Your task to perform on an android device: Open Google Maps and go to "Timeline" Image 0: 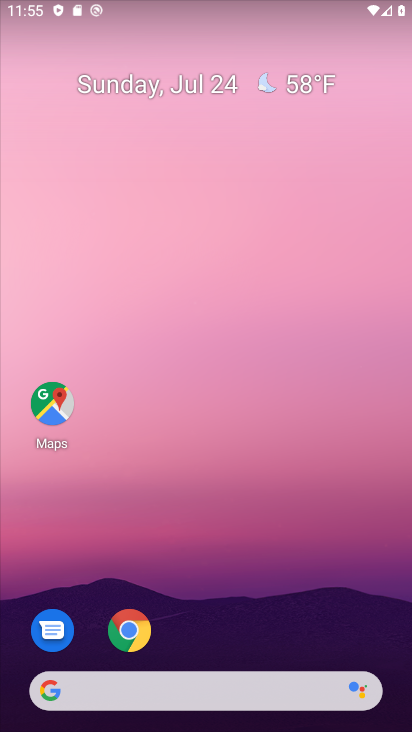
Step 0: drag from (246, 638) to (200, 116)
Your task to perform on an android device: Open Google Maps and go to "Timeline" Image 1: 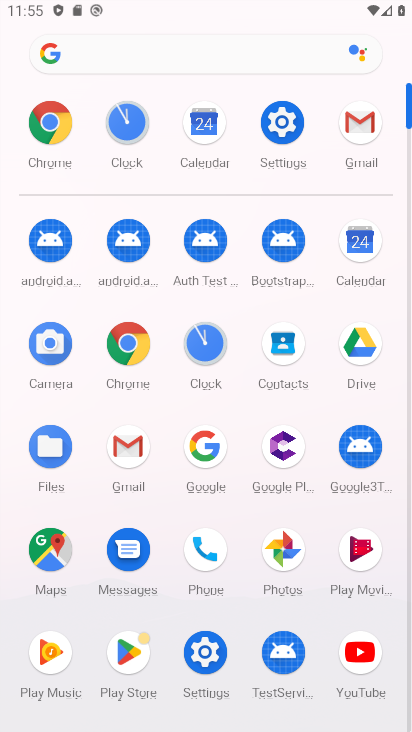
Step 1: click (54, 550)
Your task to perform on an android device: Open Google Maps and go to "Timeline" Image 2: 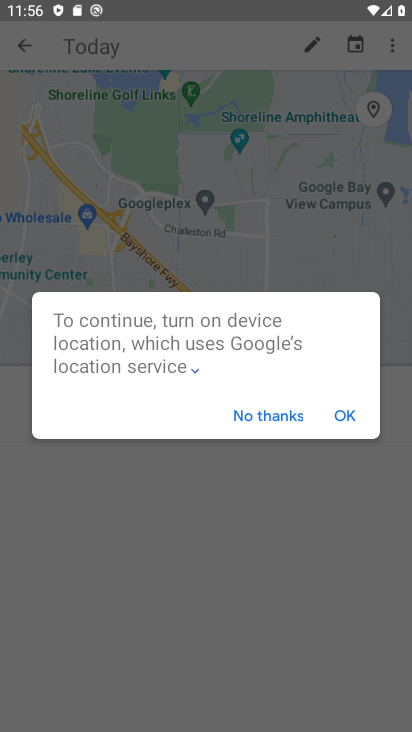
Step 2: click (294, 417)
Your task to perform on an android device: Open Google Maps and go to "Timeline" Image 3: 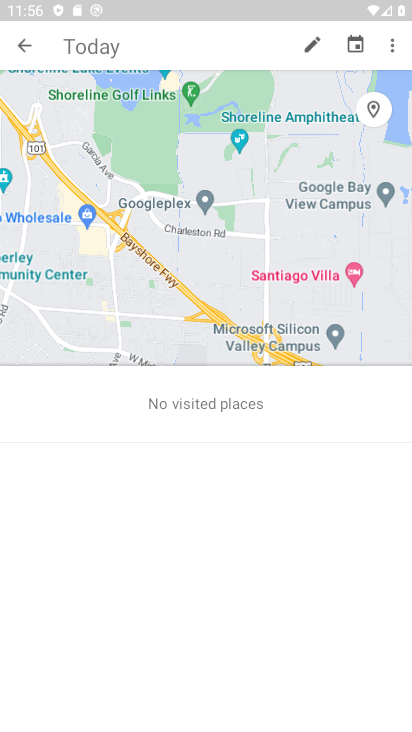
Step 3: click (16, 45)
Your task to perform on an android device: Open Google Maps and go to "Timeline" Image 4: 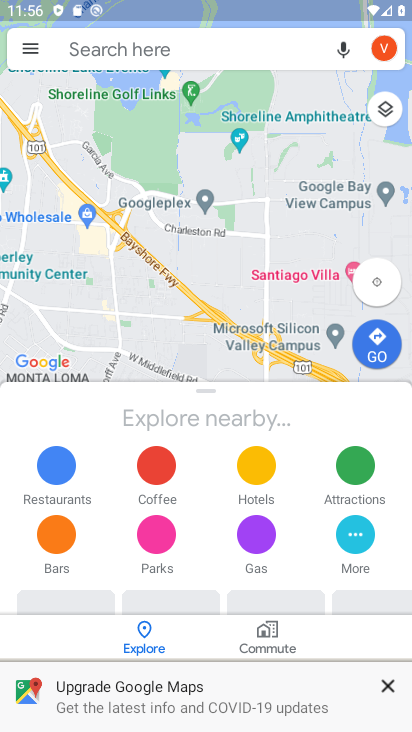
Step 4: click (20, 48)
Your task to perform on an android device: Open Google Maps and go to "Timeline" Image 5: 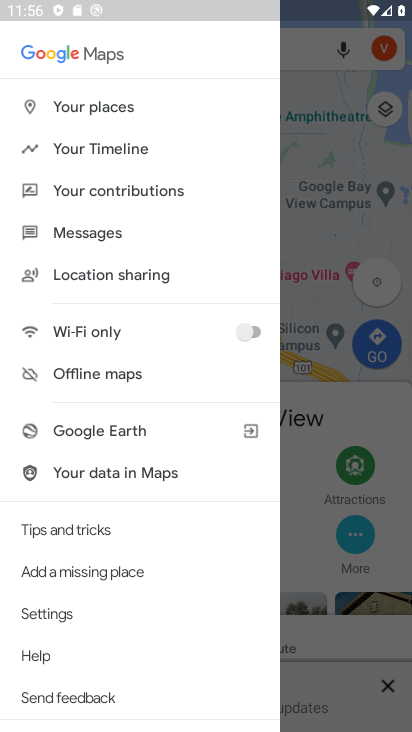
Step 5: click (104, 143)
Your task to perform on an android device: Open Google Maps and go to "Timeline" Image 6: 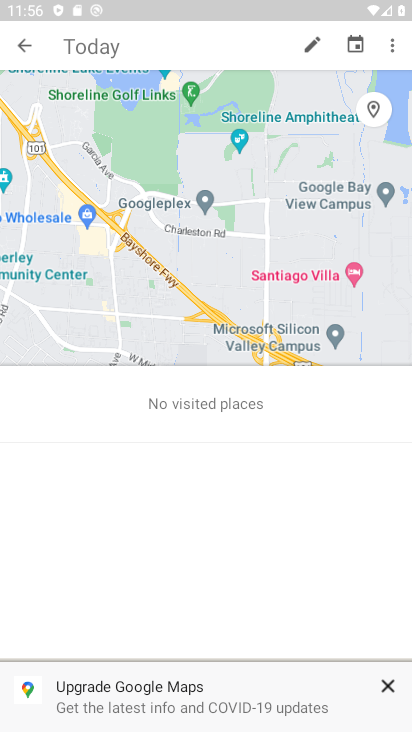
Step 6: click (396, 49)
Your task to perform on an android device: Open Google Maps and go to "Timeline" Image 7: 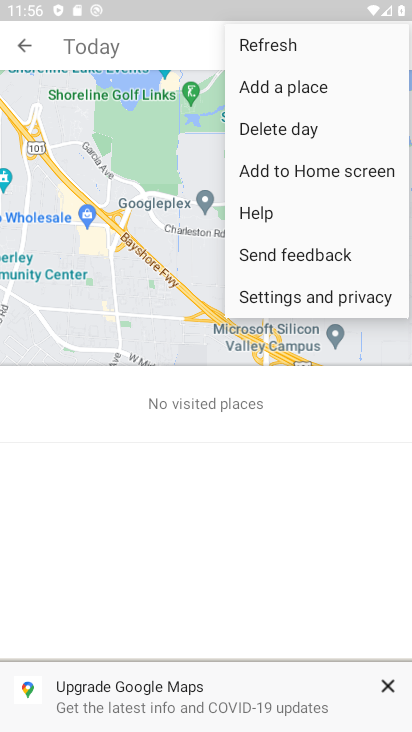
Step 7: click (327, 310)
Your task to perform on an android device: Open Google Maps and go to "Timeline" Image 8: 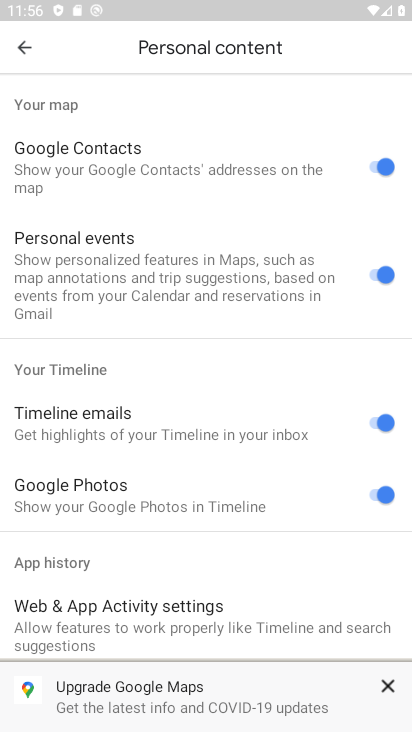
Step 8: click (24, 54)
Your task to perform on an android device: Open Google Maps and go to "Timeline" Image 9: 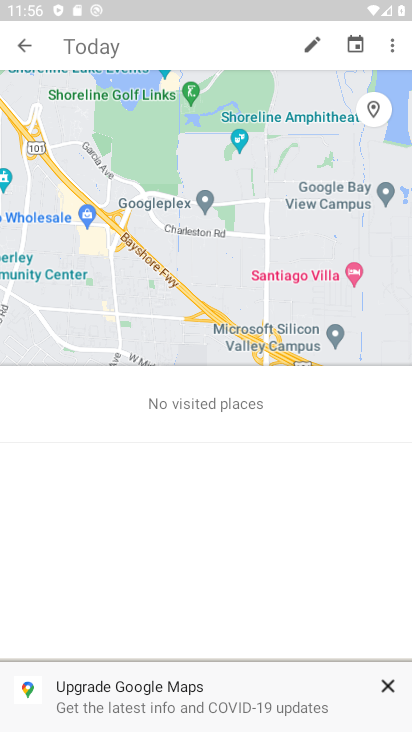
Step 9: click (24, 54)
Your task to perform on an android device: Open Google Maps and go to "Timeline" Image 10: 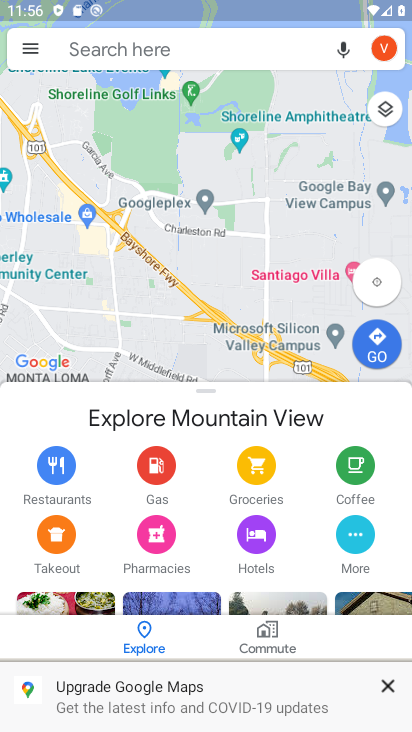
Step 10: click (29, 55)
Your task to perform on an android device: Open Google Maps and go to "Timeline" Image 11: 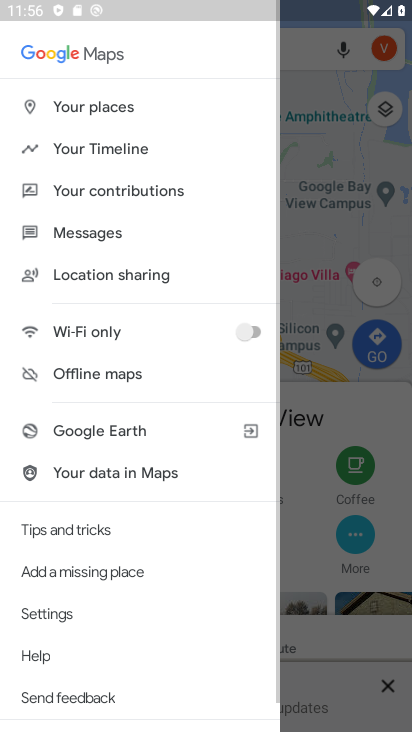
Step 11: click (101, 161)
Your task to perform on an android device: Open Google Maps and go to "Timeline" Image 12: 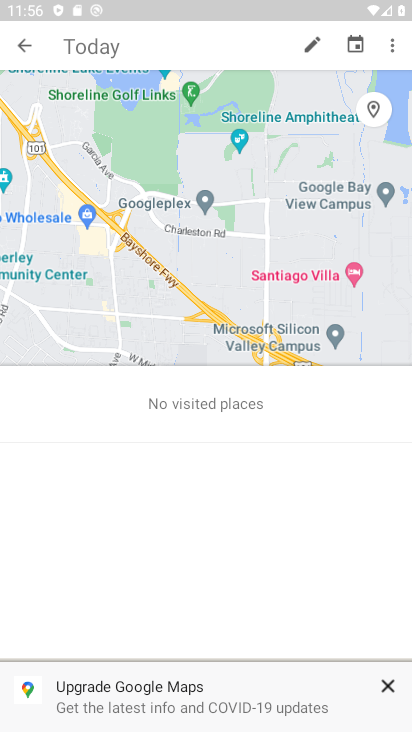
Step 12: task complete